Your task to perform on an android device: remove spam from my inbox in the gmail app Image 0: 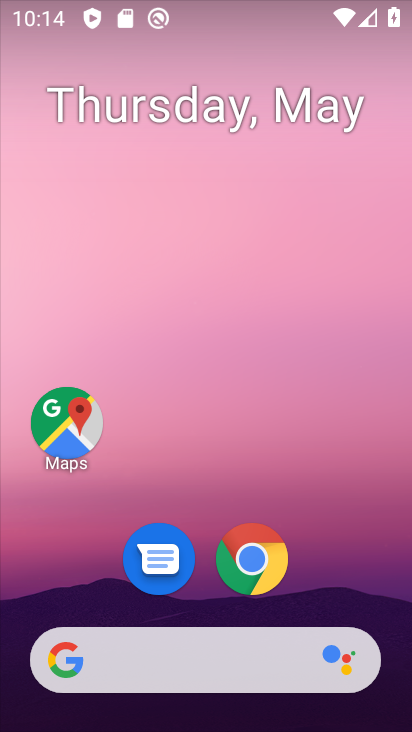
Step 0: drag from (360, 548) to (345, 45)
Your task to perform on an android device: remove spam from my inbox in the gmail app Image 1: 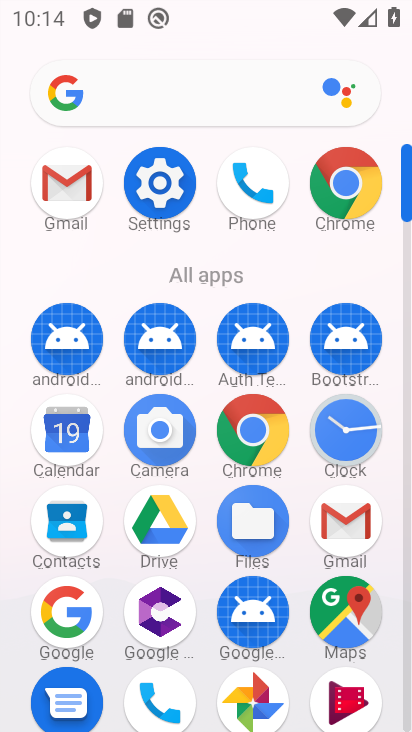
Step 1: click (61, 184)
Your task to perform on an android device: remove spam from my inbox in the gmail app Image 2: 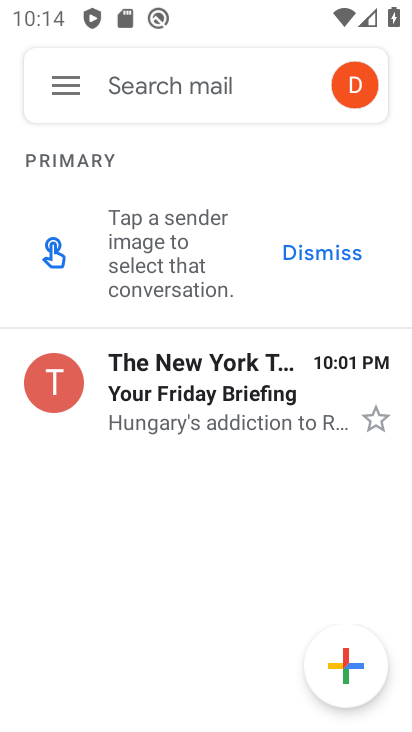
Step 2: click (63, 88)
Your task to perform on an android device: remove spam from my inbox in the gmail app Image 3: 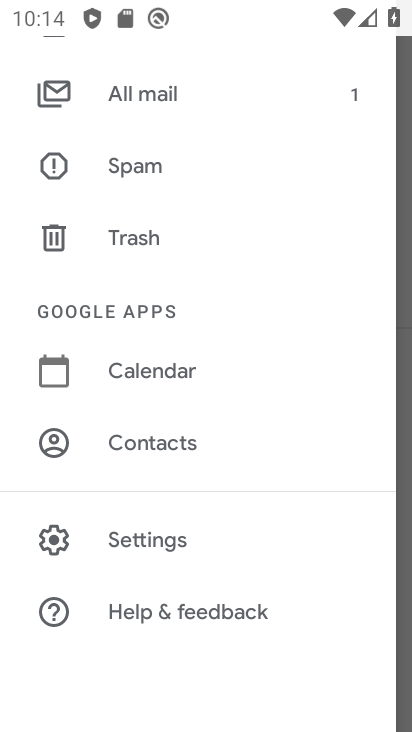
Step 3: click (132, 173)
Your task to perform on an android device: remove spam from my inbox in the gmail app Image 4: 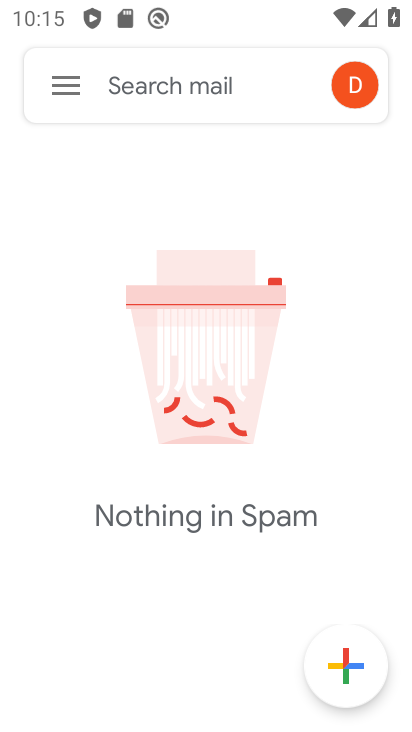
Step 4: task complete